Your task to perform on an android device: show emergency info Image 0: 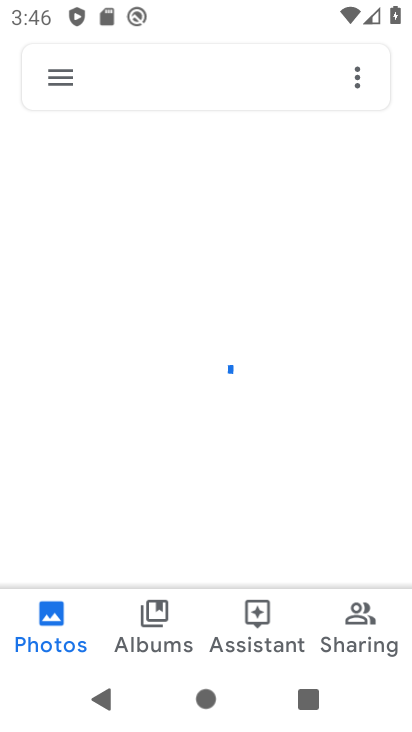
Step 0: press home button
Your task to perform on an android device: show emergency info Image 1: 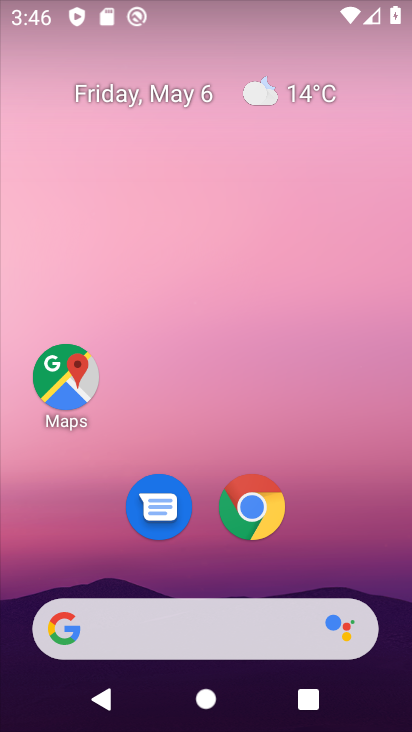
Step 1: drag from (356, 585) to (356, 68)
Your task to perform on an android device: show emergency info Image 2: 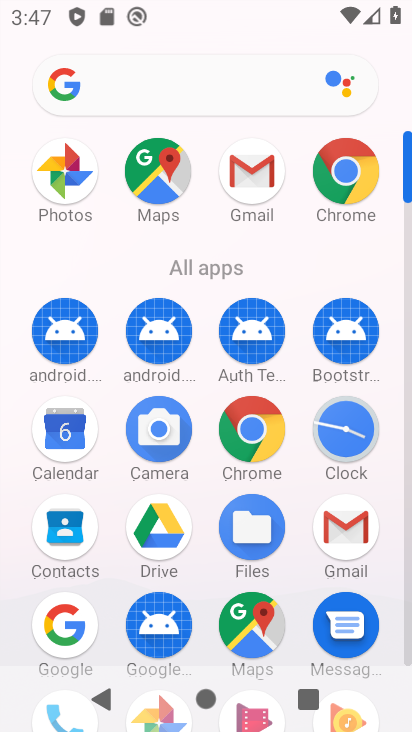
Step 2: click (408, 607)
Your task to perform on an android device: show emergency info Image 3: 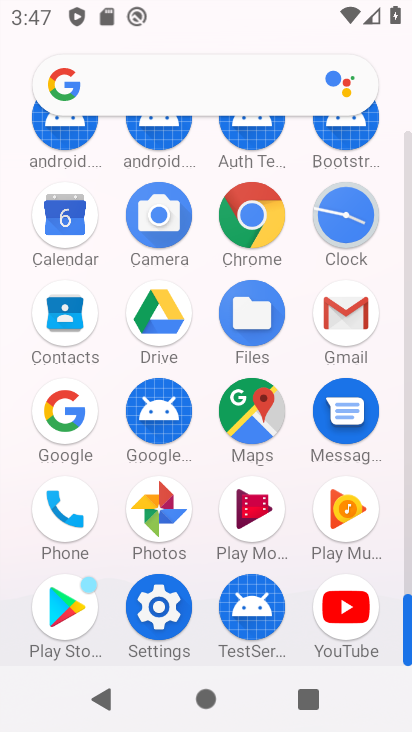
Step 3: click (160, 606)
Your task to perform on an android device: show emergency info Image 4: 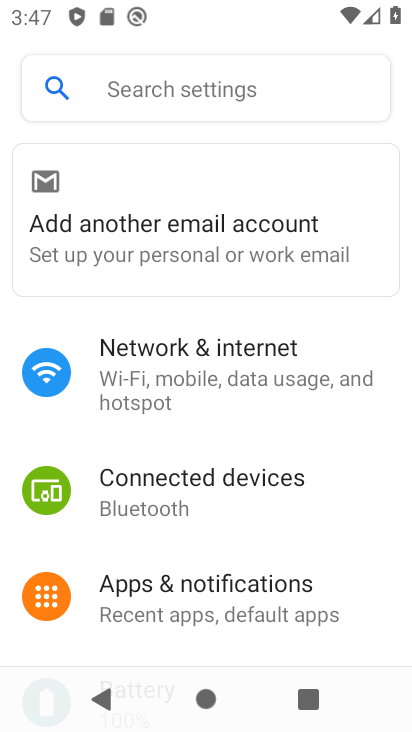
Step 4: drag from (160, 606) to (212, 49)
Your task to perform on an android device: show emergency info Image 5: 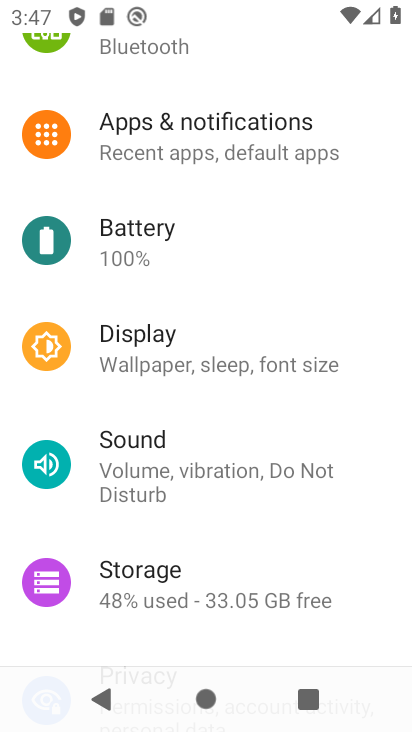
Step 5: drag from (236, 643) to (215, 106)
Your task to perform on an android device: show emergency info Image 6: 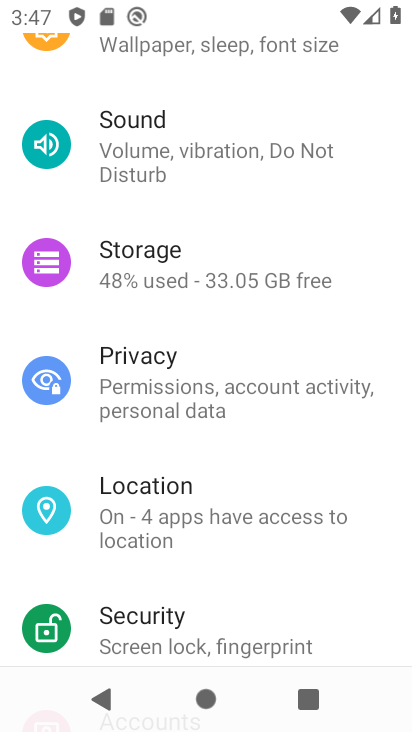
Step 6: drag from (259, 587) to (316, 12)
Your task to perform on an android device: show emergency info Image 7: 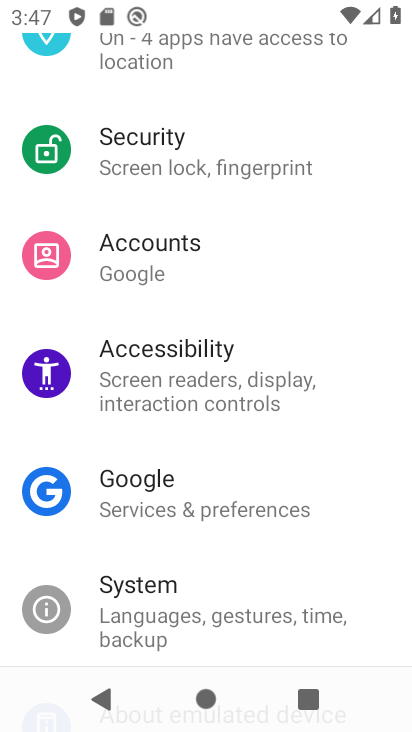
Step 7: drag from (275, 610) to (288, 337)
Your task to perform on an android device: show emergency info Image 8: 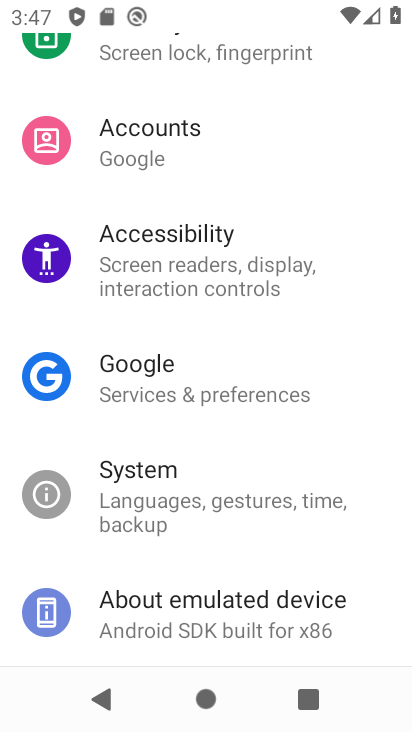
Step 8: click (283, 602)
Your task to perform on an android device: show emergency info Image 9: 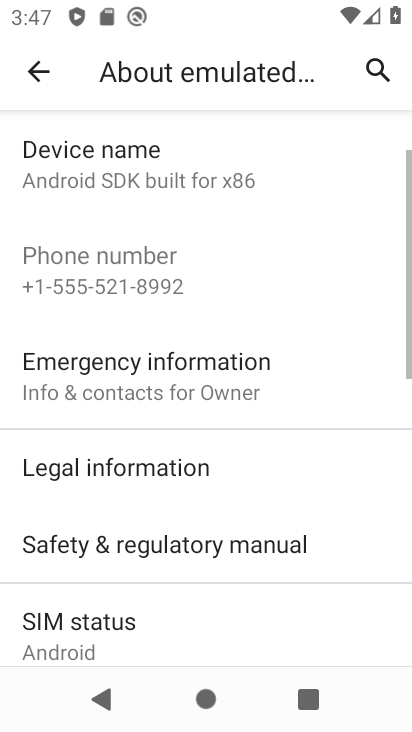
Step 9: click (249, 373)
Your task to perform on an android device: show emergency info Image 10: 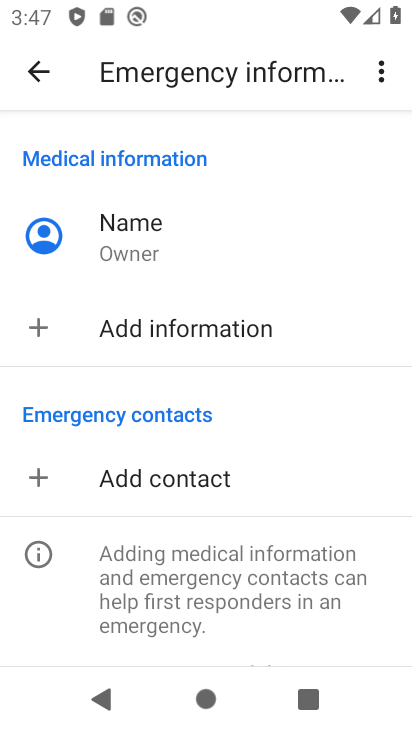
Step 10: task complete